Your task to perform on an android device: search for starred emails in the gmail app Image 0: 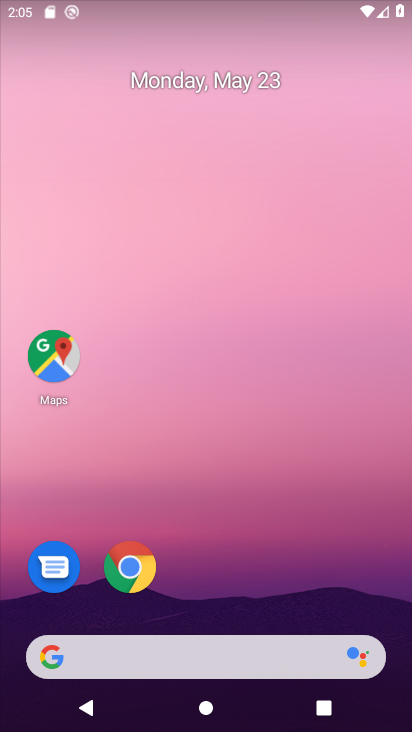
Step 0: drag from (220, 584) to (207, 178)
Your task to perform on an android device: search for starred emails in the gmail app Image 1: 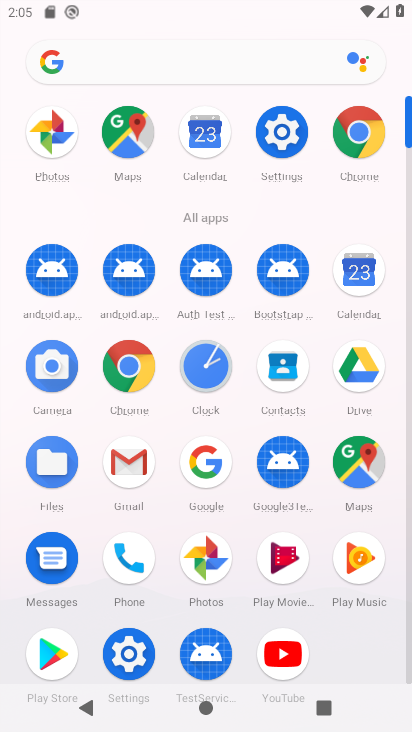
Step 1: click (139, 454)
Your task to perform on an android device: search for starred emails in the gmail app Image 2: 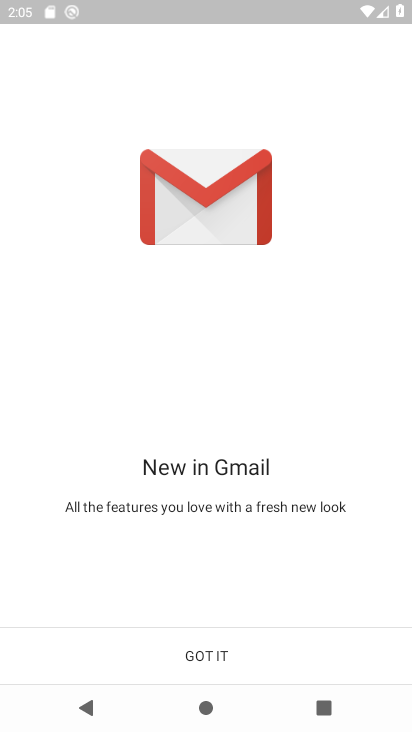
Step 2: click (257, 655)
Your task to perform on an android device: search for starred emails in the gmail app Image 3: 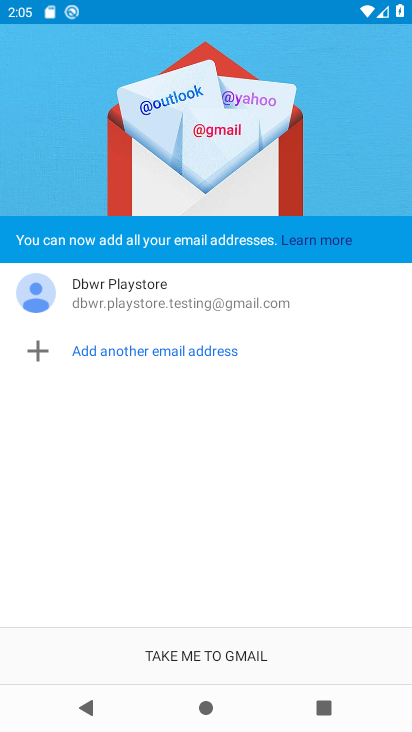
Step 3: click (257, 655)
Your task to perform on an android device: search for starred emails in the gmail app Image 4: 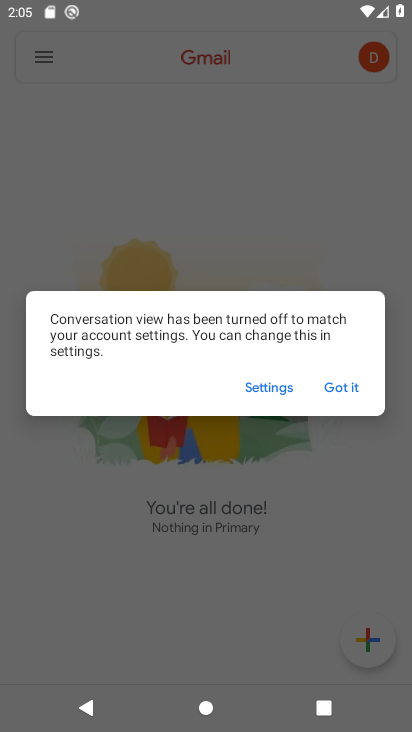
Step 4: click (342, 372)
Your task to perform on an android device: search for starred emails in the gmail app Image 5: 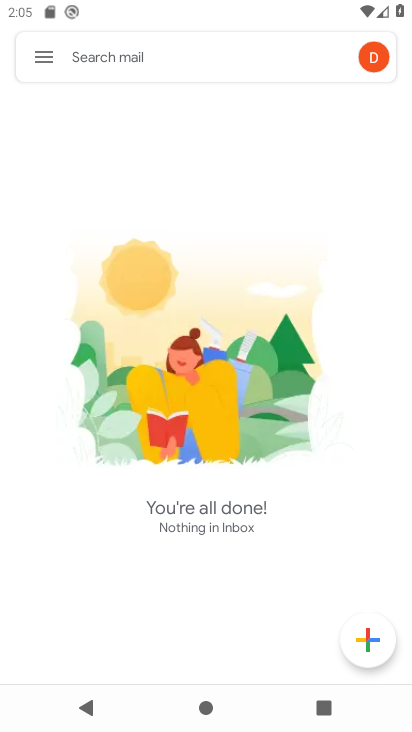
Step 5: click (44, 54)
Your task to perform on an android device: search for starred emails in the gmail app Image 6: 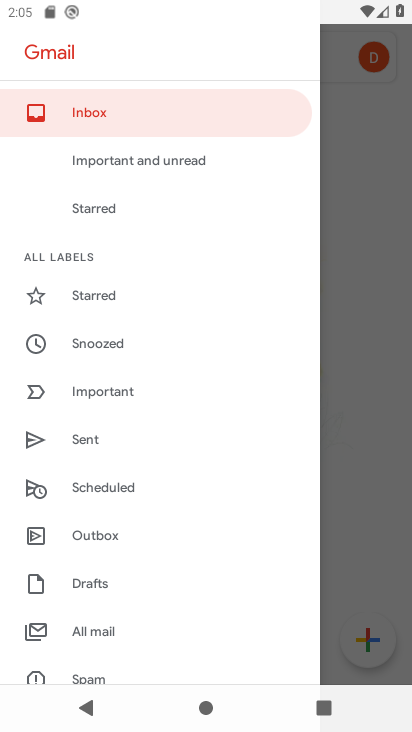
Step 6: click (132, 304)
Your task to perform on an android device: search for starred emails in the gmail app Image 7: 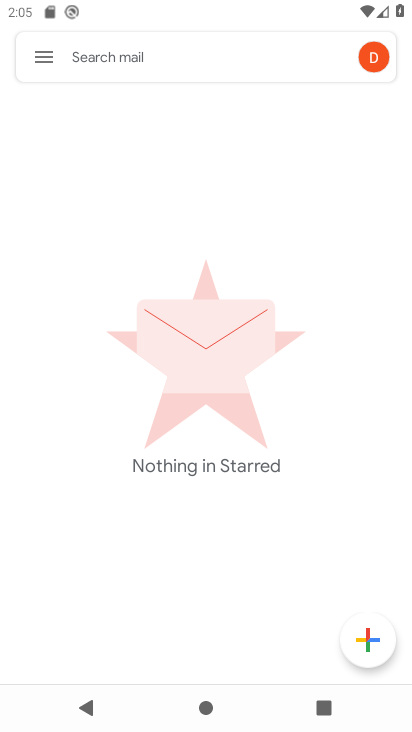
Step 7: task complete